Your task to perform on an android device: Open sound settings Image 0: 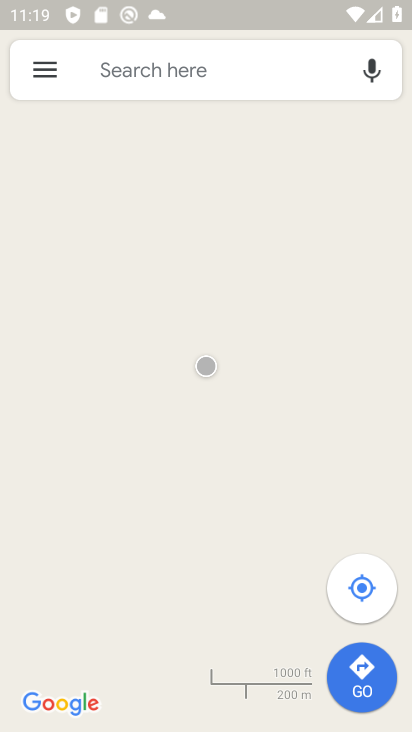
Step 0: press home button
Your task to perform on an android device: Open sound settings Image 1: 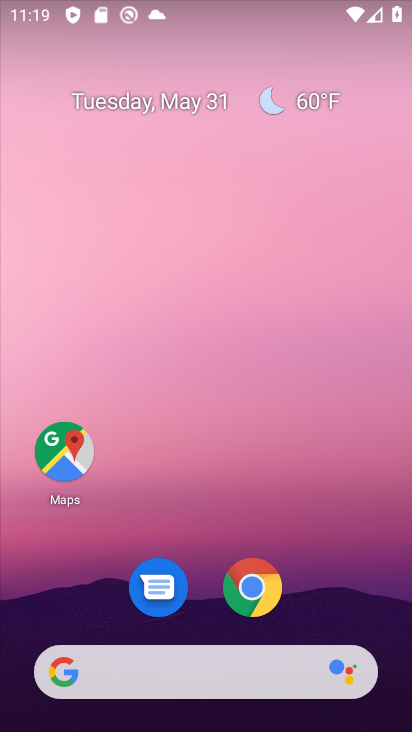
Step 1: drag from (27, 635) to (214, 37)
Your task to perform on an android device: Open sound settings Image 2: 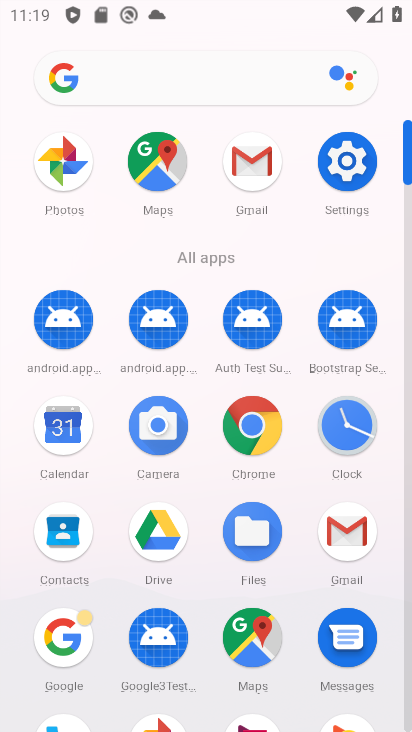
Step 2: drag from (180, 594) to (252, 240)
Your task to perform on an android device: Open sound settings Image 3: 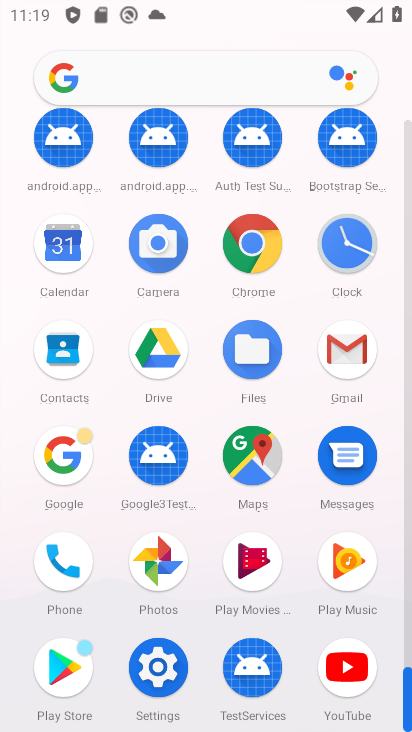
Step 3: click (147, 671)
Your task to perform on an android device: Open sound settings Image 4: 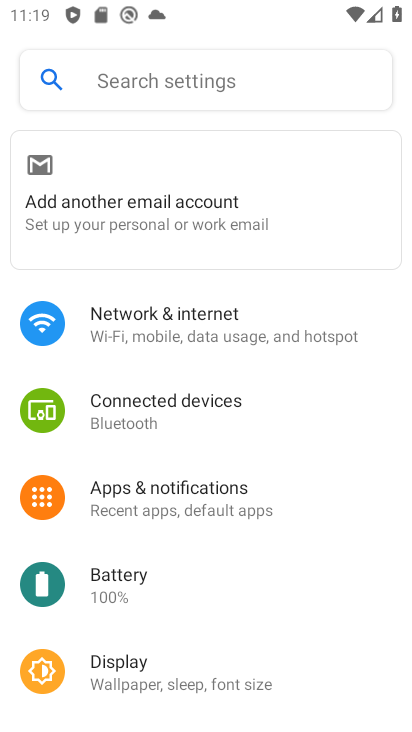
Step 4: drag from (148, 673) to (229, 307)
Your task to perform on an android device: Open sound settings Image 5: 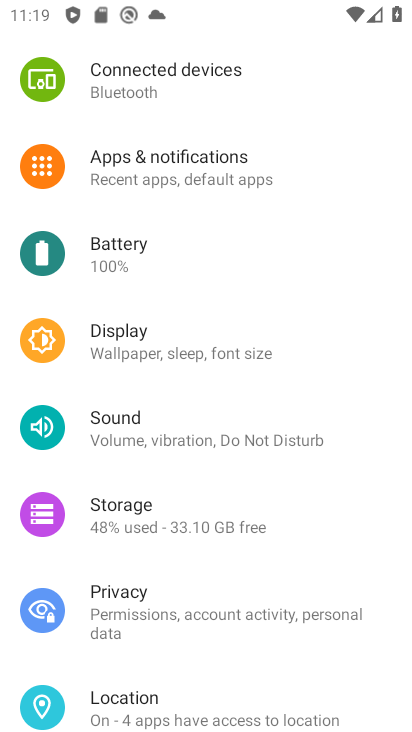
Step 5: click (140, 427)
Your task to perform on an android device: Open sound settings Image 6: 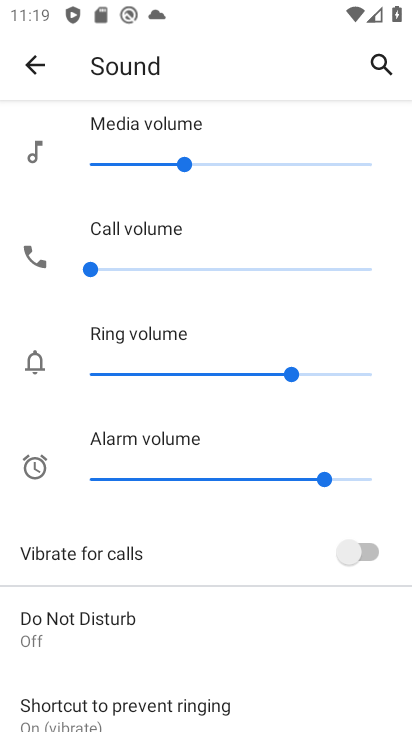
Step 6: task complete